Your task to perform on an android device: Empty the shopping cart on walmart.com. Image 0: 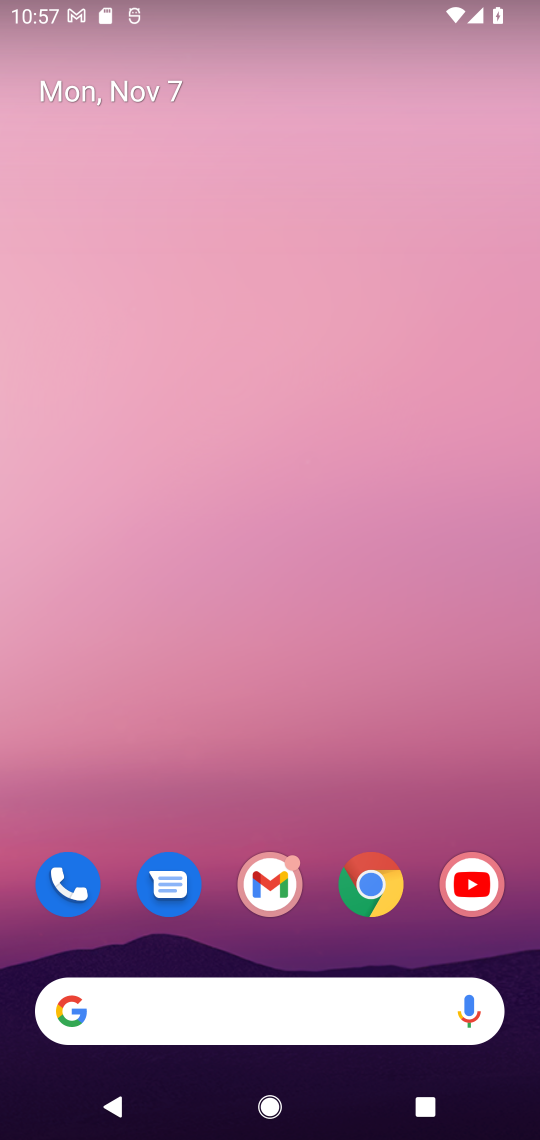
Step 0: click (366, 882)
Your task to perform on an android device: Empty the shopping cart on walmart.com. Image 1: 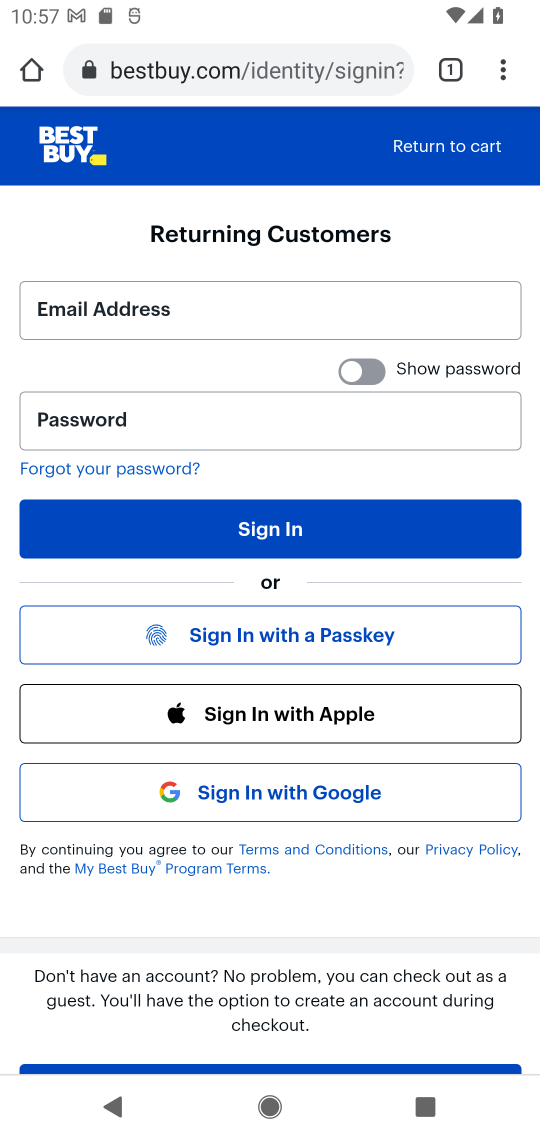
Step 1: click (33, 64)
Your task to perform on an android device: Empty the shopping cart on walmart.com. Image 2: 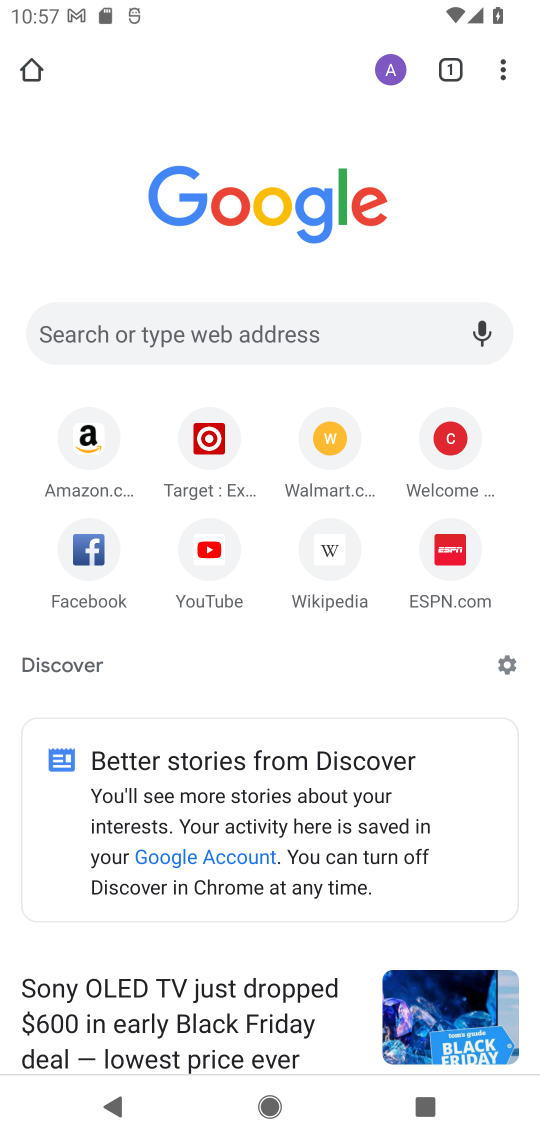
Step 2: click (380, 332)
Your task to perform on an android device: Empty the shopping cart on walmart.com. Image 3: 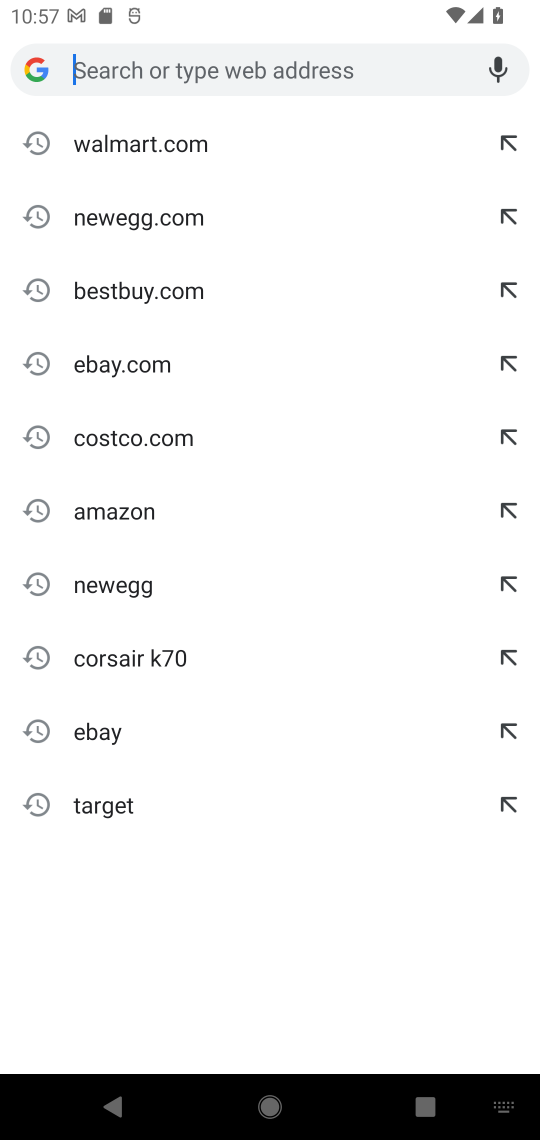
Step 3: click (160, 139)
Your task to perform on an android device: Empty the shopping cart on walmart.com. Image 4: 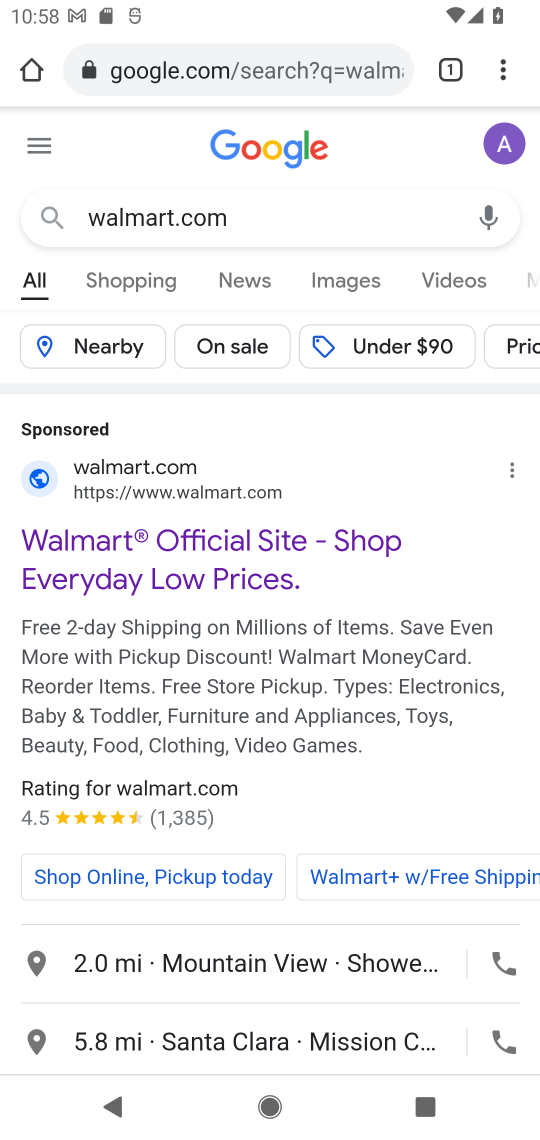
Step 4: click (211, 493)
Your task to perform on an android device: Empty the shopping cart on walmart.com. Image 5: 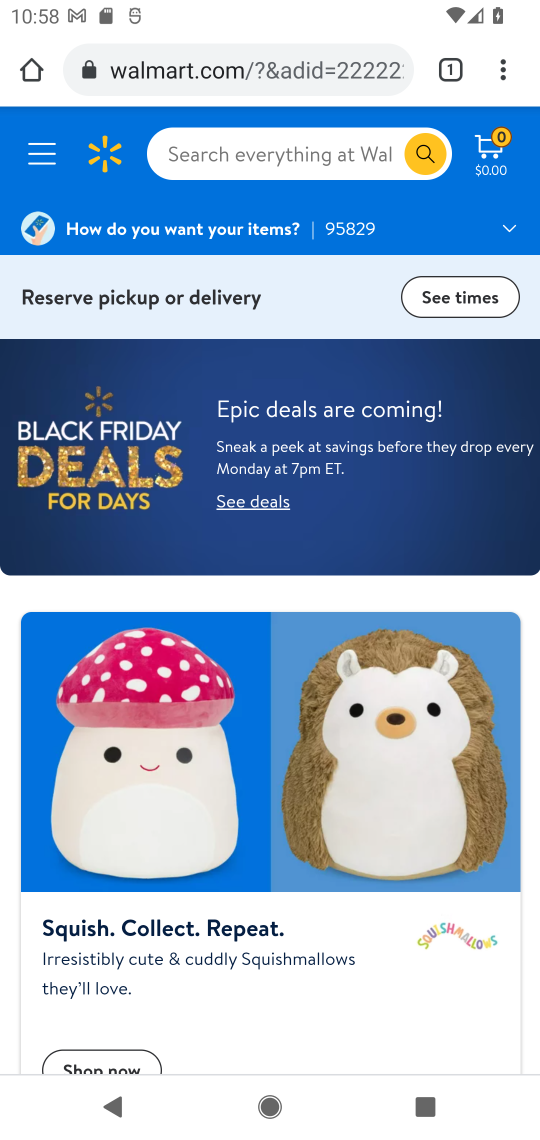
Step 5: click (483, 144)
Your task to perform on an android device: Empty the shopping cart on walmart.com. Image 6: 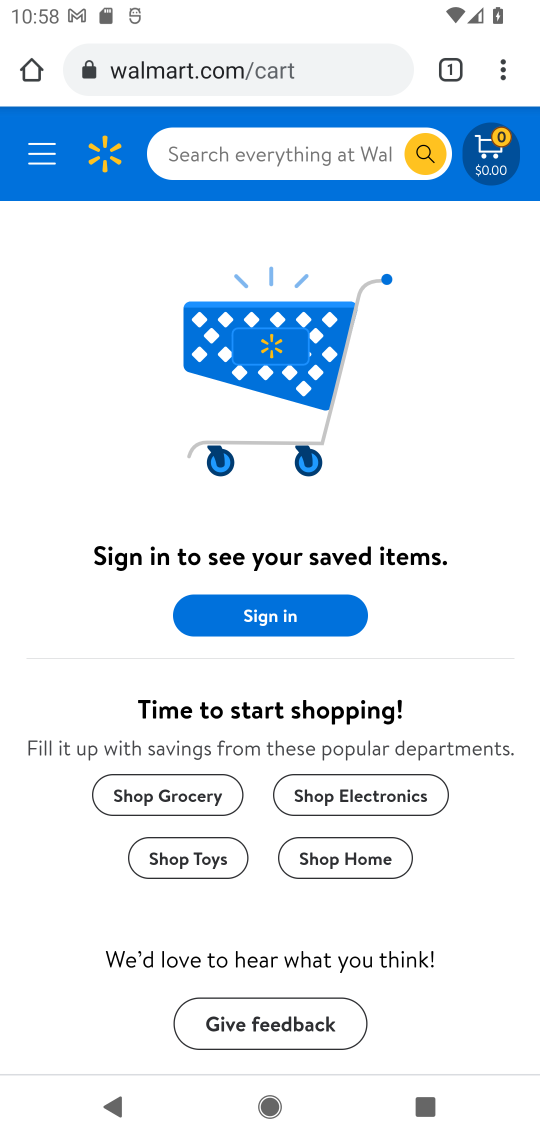
Step 6: task complete